Your task to perform on an android device: open app "Venmo" (install if not already installed) Image 0: 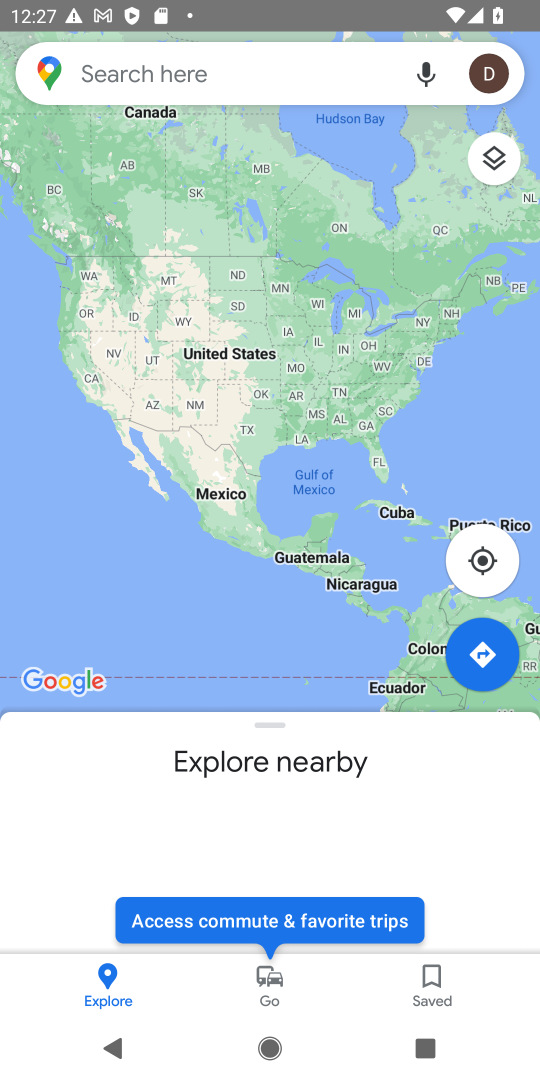
Step 0: press home button
Your task to perform on an android device: open app "Venmo" (install if not already installed) Image 1: 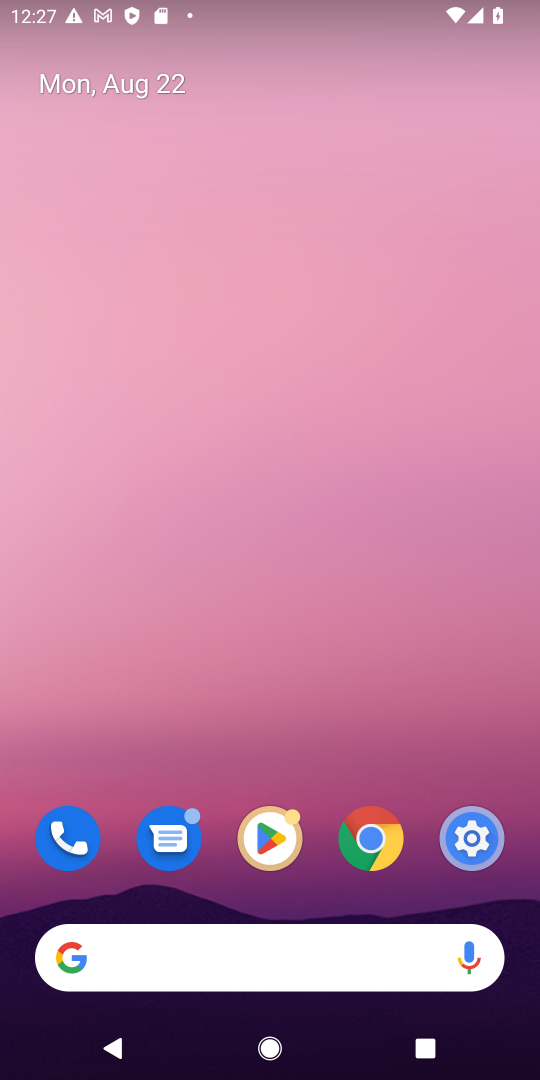
Step 1: drag from (265, 939) to (233, 177)
Your task to perform on an android device: open app "Venmo" (install if not already installed) Image 2: 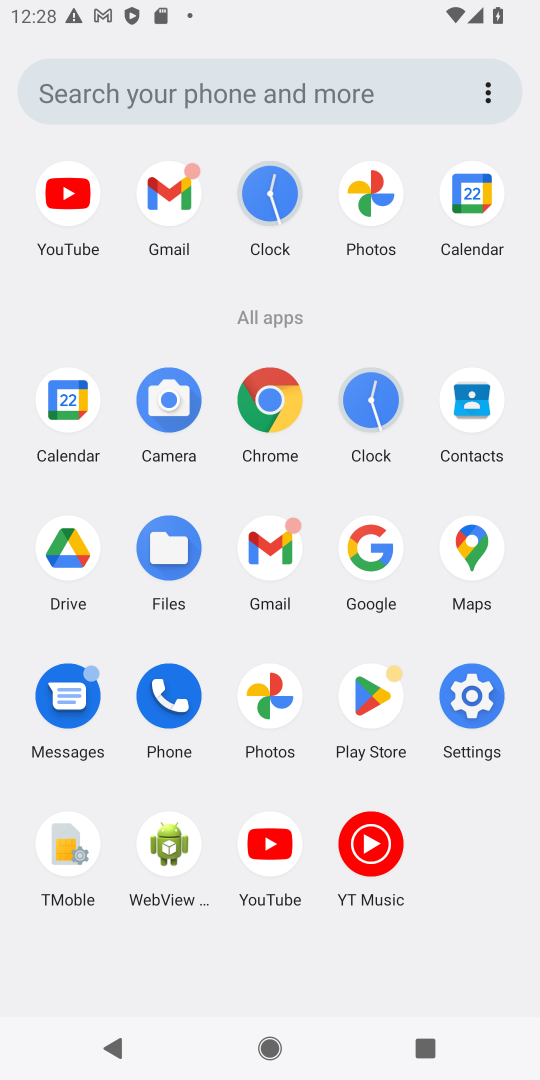
Step 2: click (368, 704)
Your task to perform on an android device: open app "Venmo" (install if not already installed) Image 3: 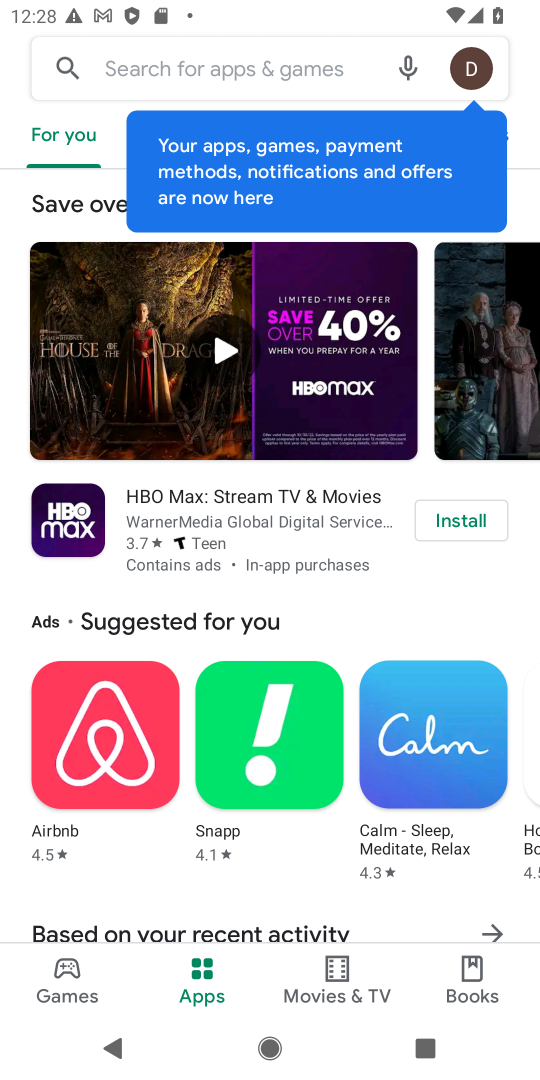
Step 3: click (132, 74)
Your task to perform on an android device: open app "Venmo" (install if not already installed) Image 4: 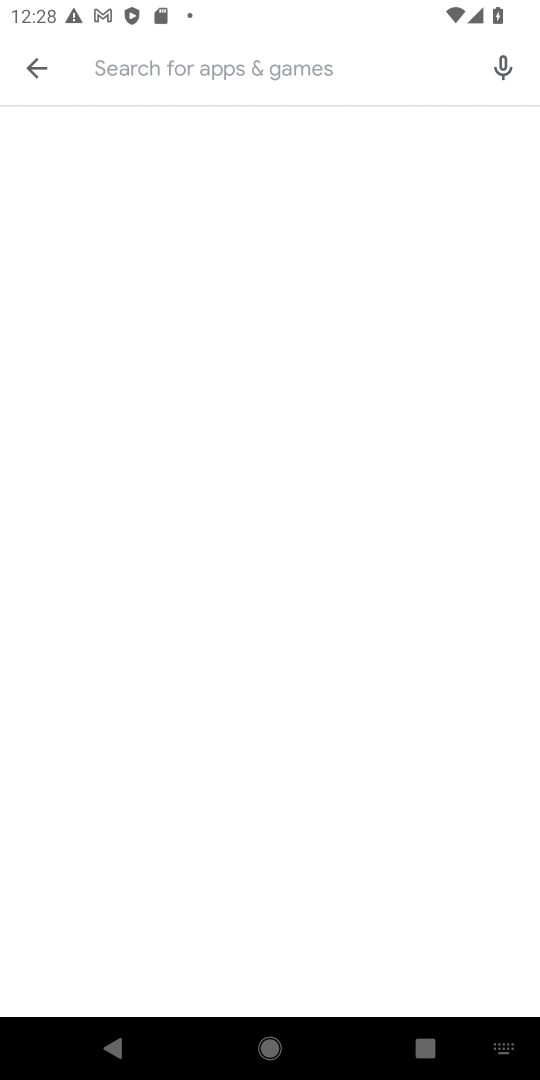
Step 4: type "Venmo"
Your task to perform on an android device: open app "Venmo" (install if not already installed) Image 5: 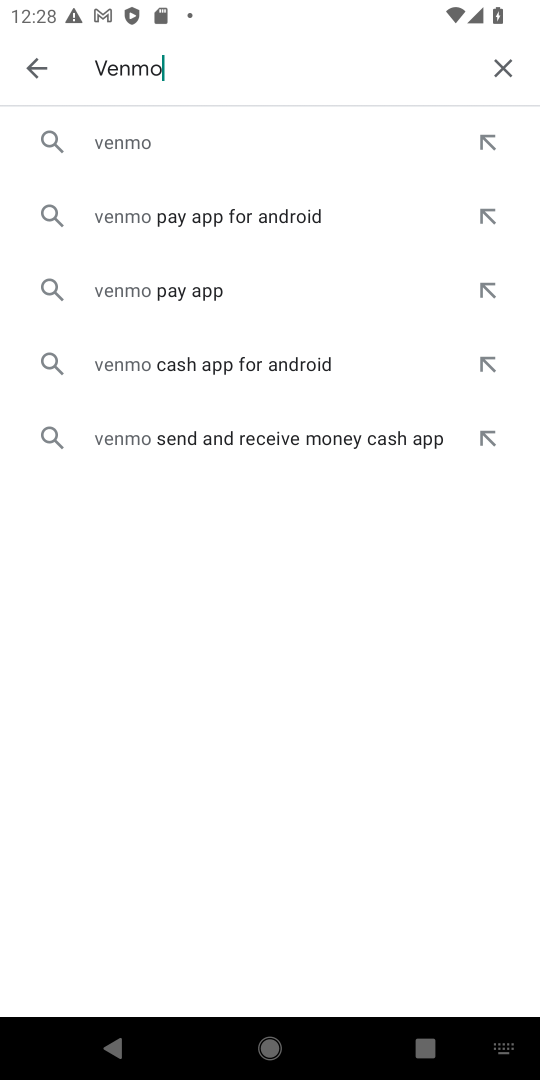
Step 5: click (132, 153)
Your task to perform on an android device: open app "Venmo" (install if not already installed) Image 6: 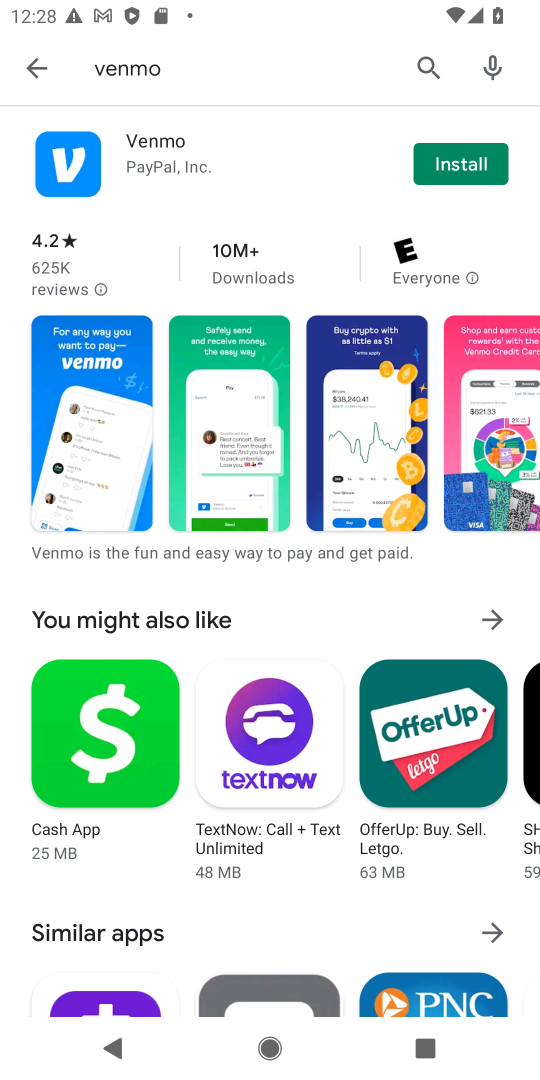
Step 6: click (456, 160)
Your task to perform on an android device: open app "Venmo" (install if not already installed) Image 7: 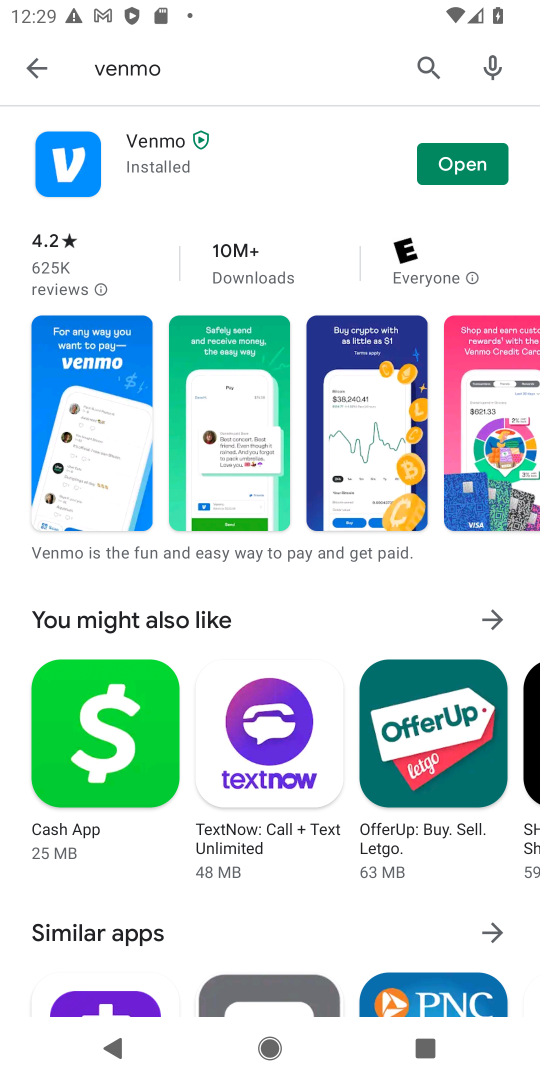
Step 7: click (464, 168)
Your task to perform on an android device: open app "Venmo" (install if not already installed) Image 8: 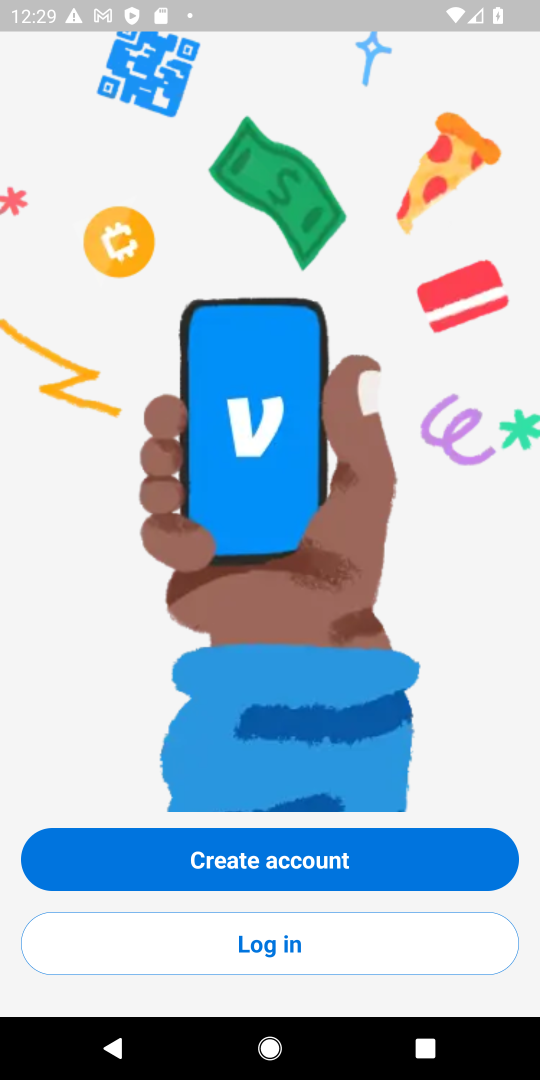
Step 8: task complete